Your task to perform on an android device: delete location history Image 0: 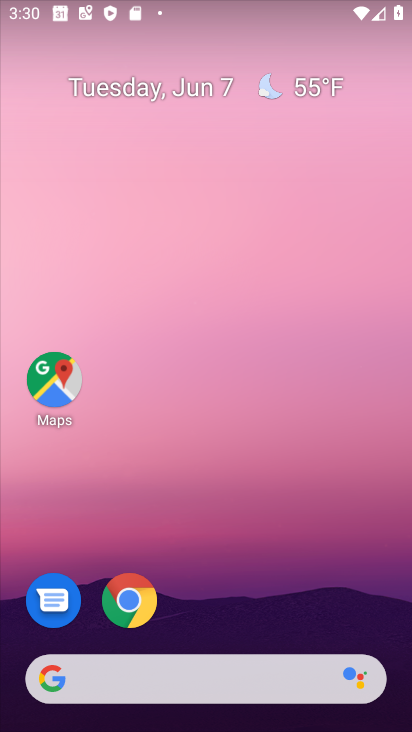
Step 0: drag from (188, 626) to (197, 89)
Your task to perform on an android device: delete location history Image 1: 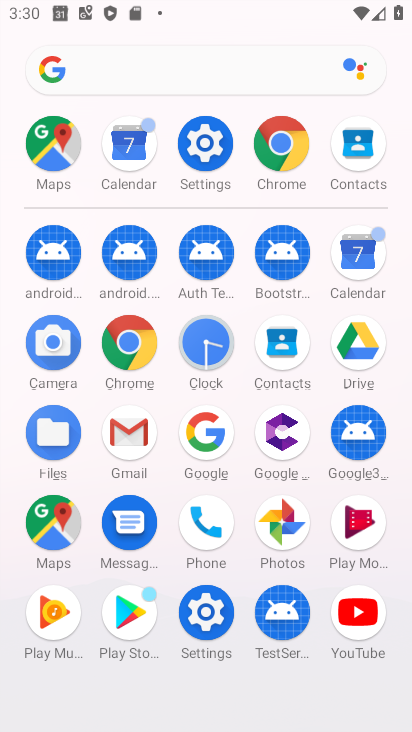
Step 1: click (62, 155)
Your task to perform on an android device: delete location history Image 2: 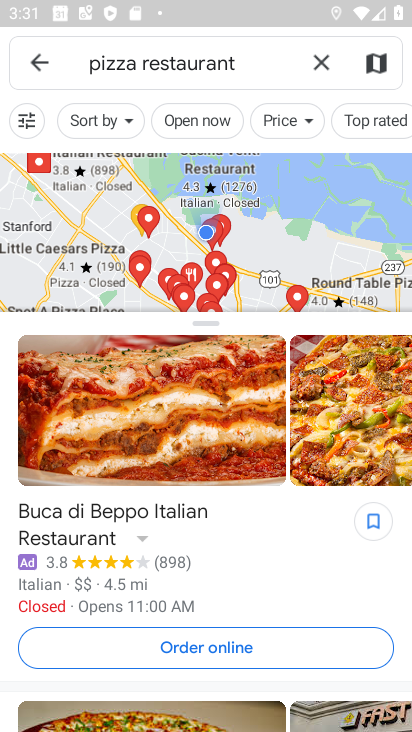
Step 2: click (319, 63)
Your task to perform on an android device: delete location history Image 3: 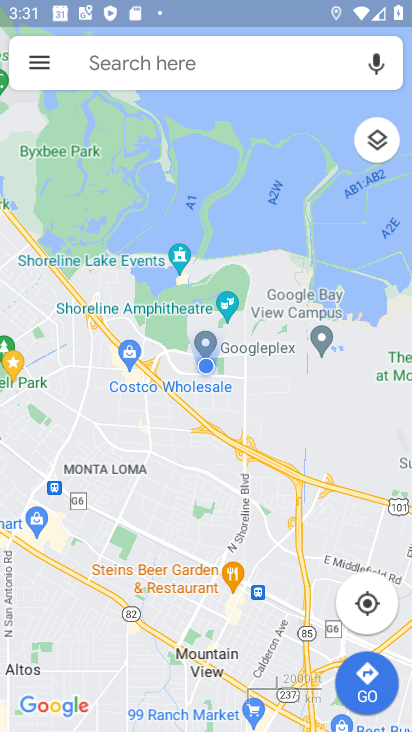
Step 3: click (35, 67)
Your task to perform on an android device: delete location history Image 4: 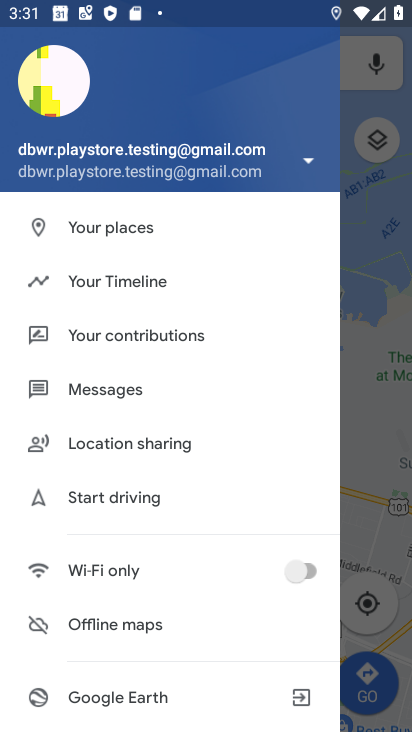
Step 4: click (98, 288)
Your task to perform on an android device: delete location history Image 5: 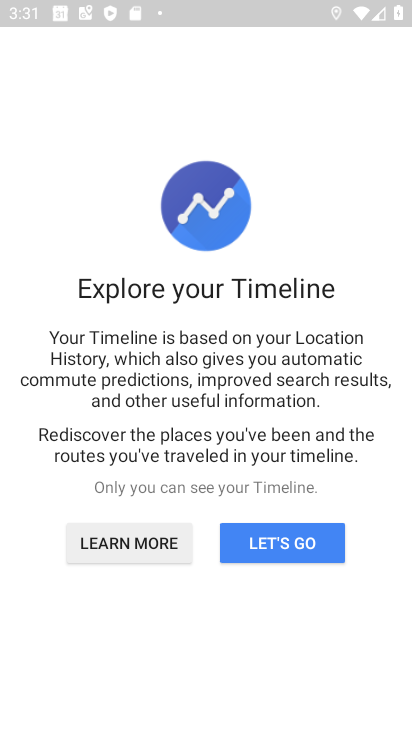
Step 5: click (244, 544)
Your task to perform on an android device: delete location history Image 6: 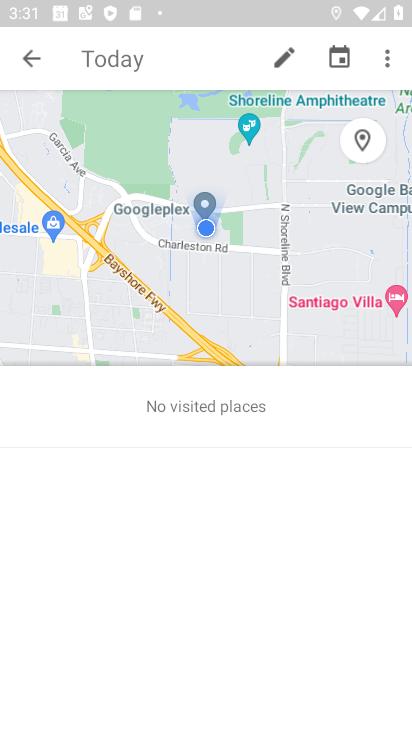
Step 6: click (384, 62)
Your task to perform on an android device: delete location history Image 7: 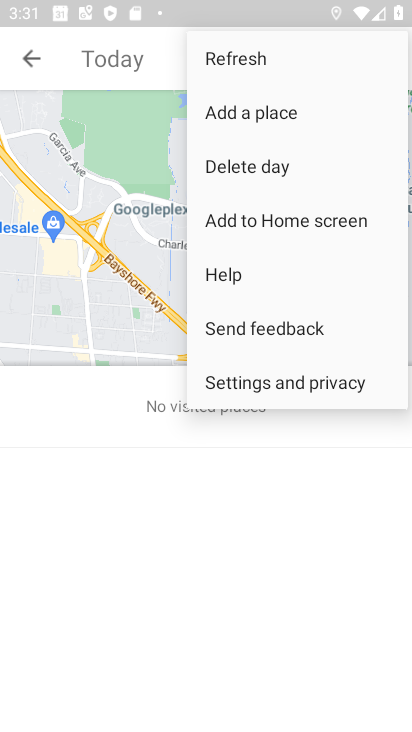
Step 7: click (240, 385)
Your task to perform on an android device: delete location history Image 8: 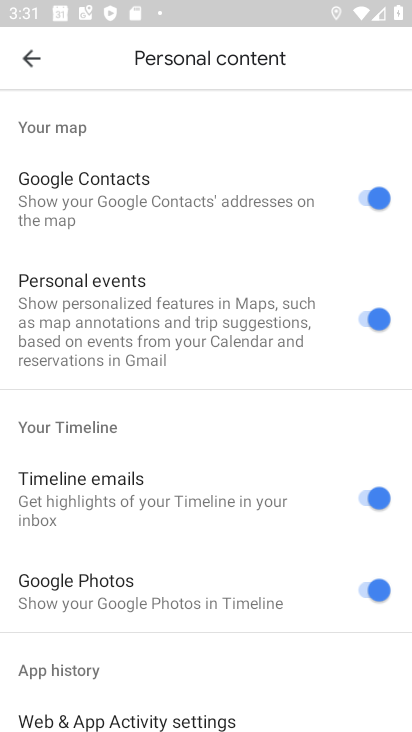
Step 8: drag from (172, 627) to (171, 227)
Your task to perform on an android device: delete location history Image 9: 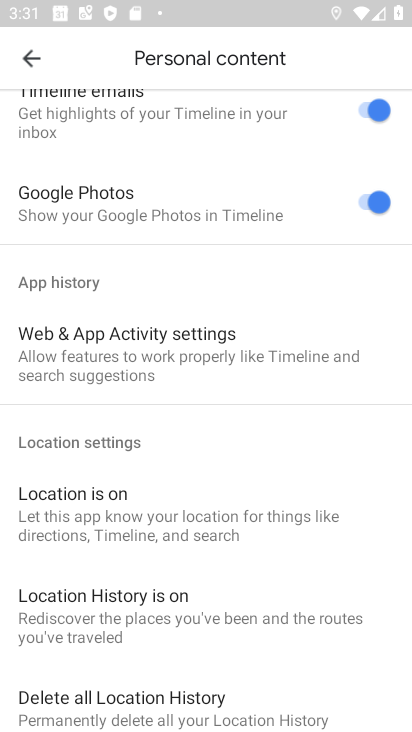
Step 9: click (128, 711)
Your task to perform on an android device: delete location history Image 10: 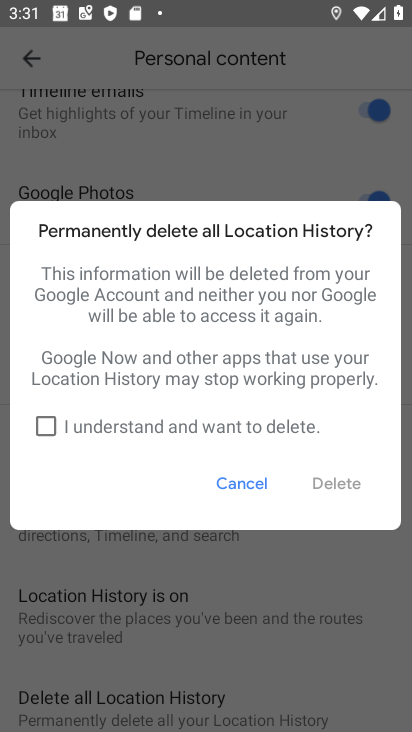
Step 10: click (42, 429)
Your task to perform on an android device: delete location history Image 11: 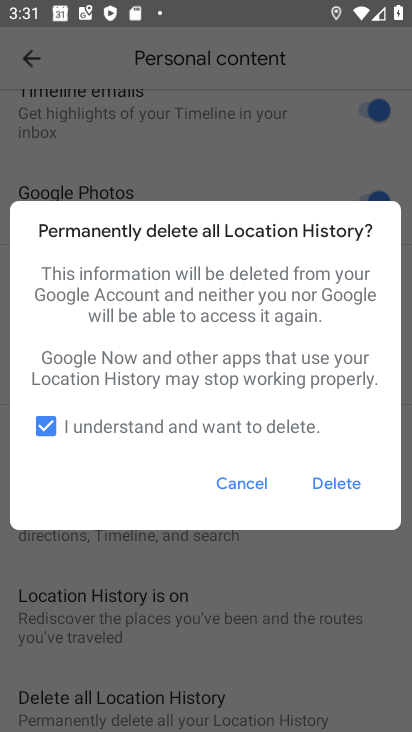
Step 11: click (335, 493)
Your task to perform on an android device: delete location history Image 12: 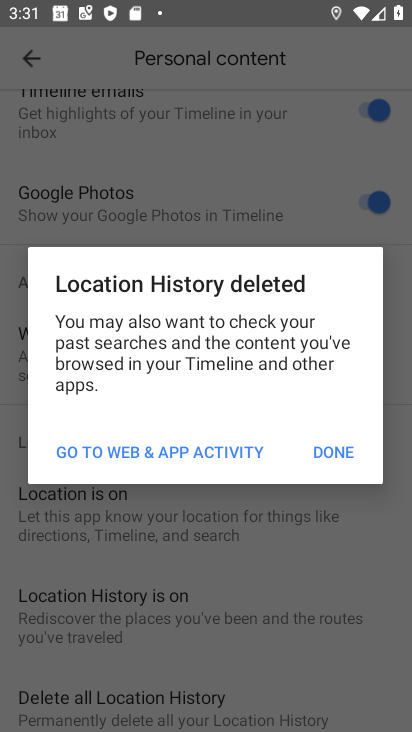
Step 12: click (339, 452)
Your task to perform on an android device: delete location history Image 13: 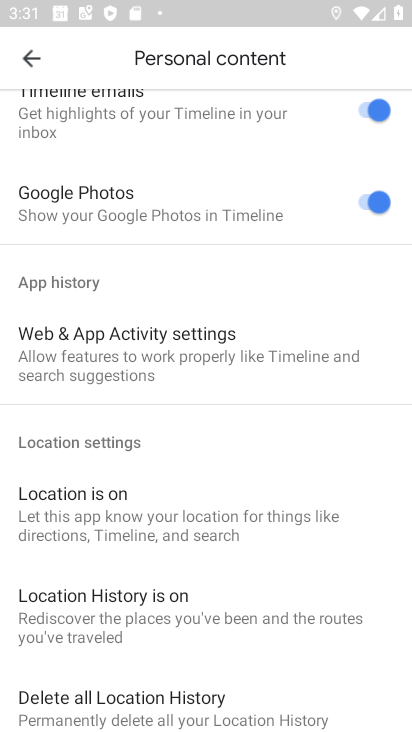
Step 13: task complete